Your task to perform on an android device: Search for good Italian restaurants Image 0: 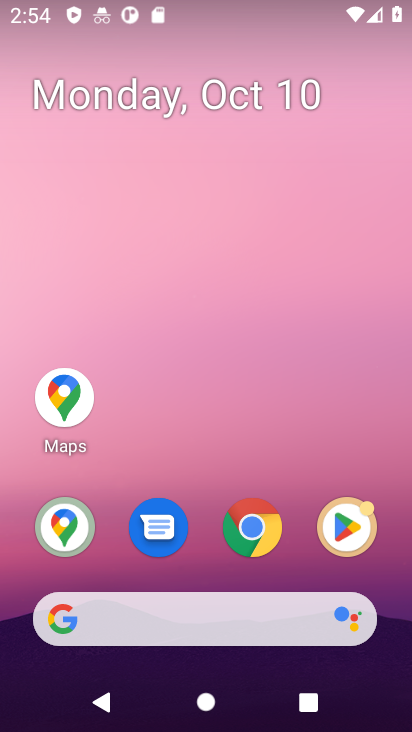
Step 0: click (65, 400)
Your task to perform on an android device: Search for good Italian restaurants Image 1: 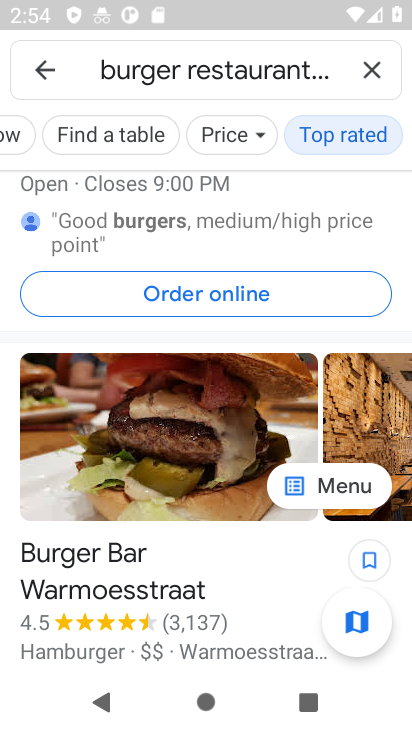
Step 1: click (368, 66)
Your task to perform on an android device: Search for good Italian restaurants Image 2: 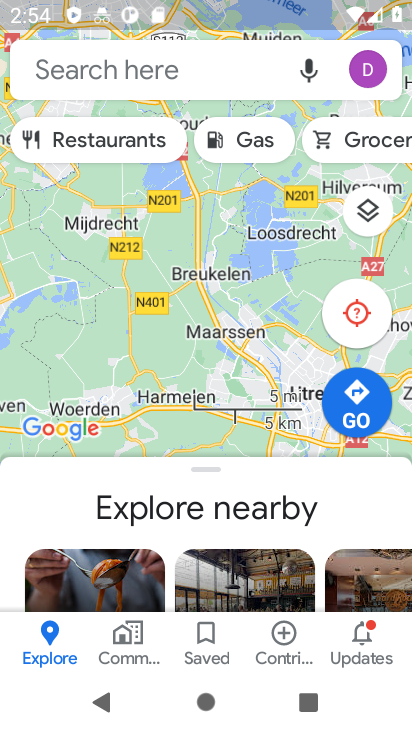
Step 2: click (193, 84)
Your task to perform on an android device: Search for good Italian restaurants Image 3: 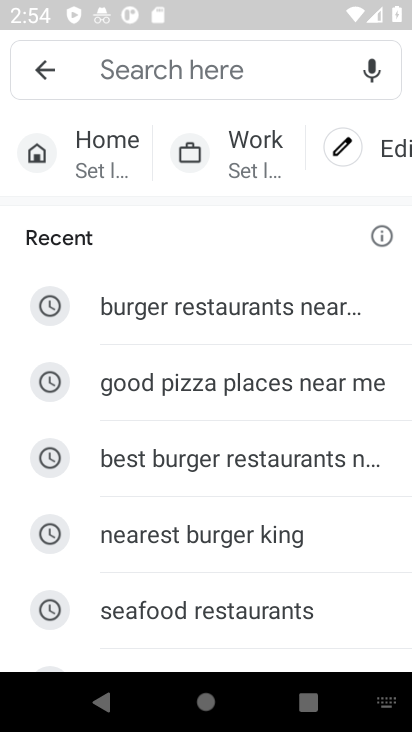
Step 3: type "good Italian restaurants"
Your task to perform on an android device: Search for good Italian restaurants Image 4: 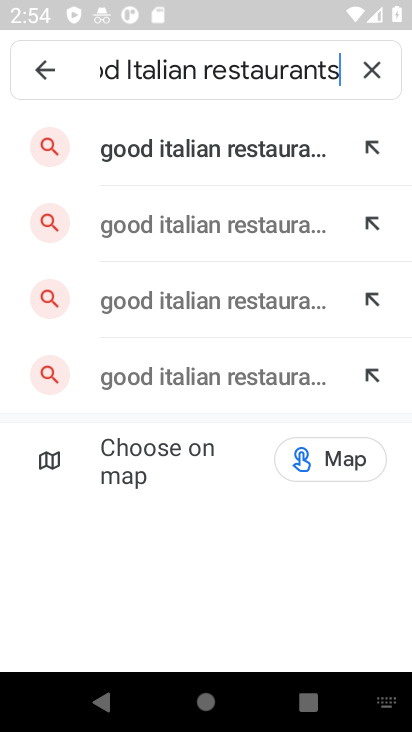
Step 4: click (161, 156)
Your task to perform on an android device: Search for good Italian restaurants Image 5: 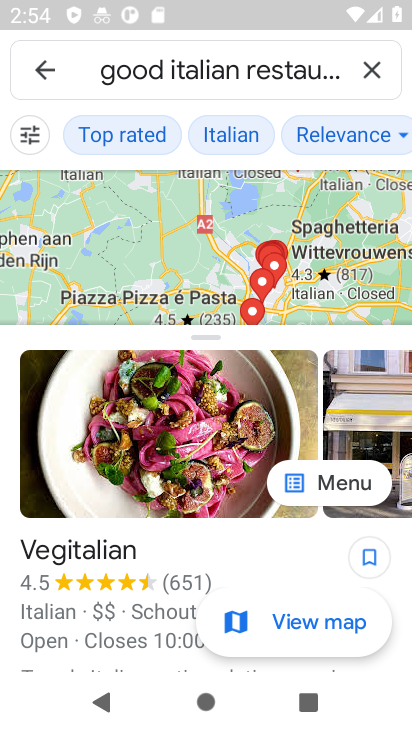
Step 5: task complete